Your task to perform on an android device: change keyboard looks Image 0: 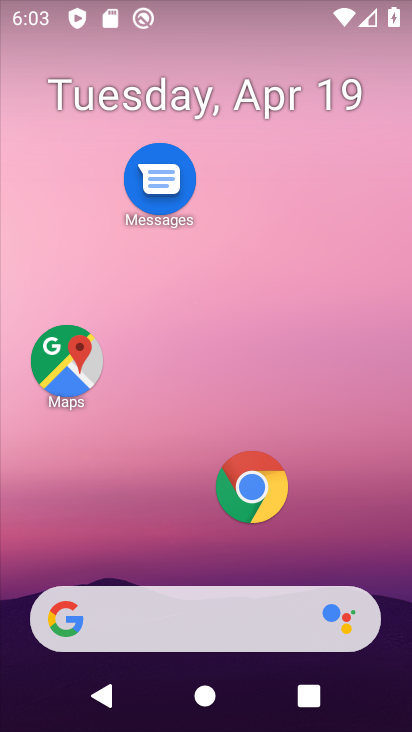
Step 0: drag from (201, 538) to (226, 28)
Your task to perform on an android device: change keyboard looks Image 1: 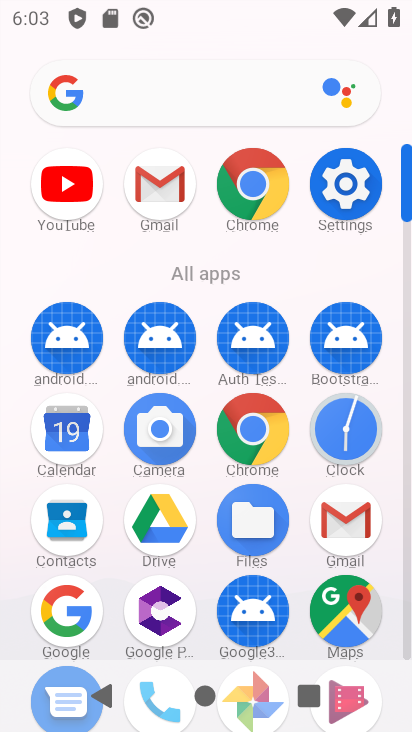
Step 1: click (341, 178)
Your task to perform on an android device: change keyboard looks Image 2: 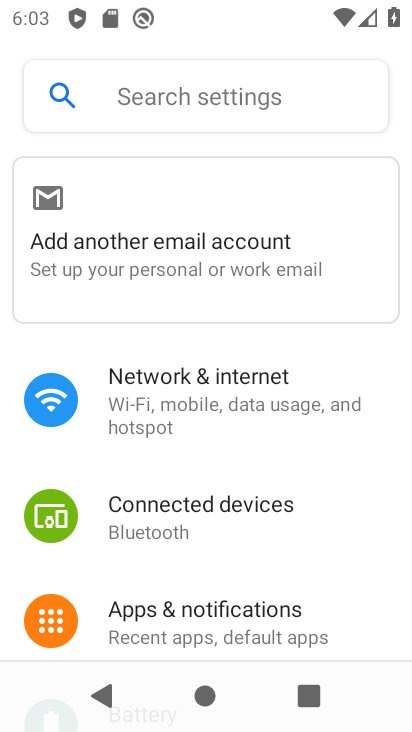
Step 2: drag from (216, 609) to (241, 86)
Your task to perform on an android device: change keyboard looks Image 3: 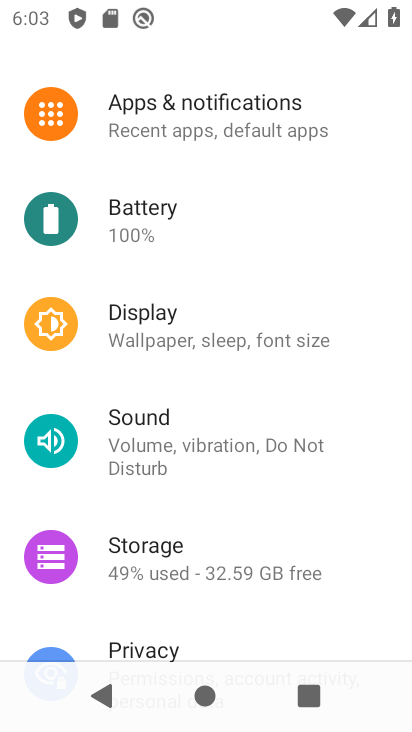
Step 3: drag from (211, 608) to (242, 70)
Your task to perform on an android device: change keyboard looks Image 4: 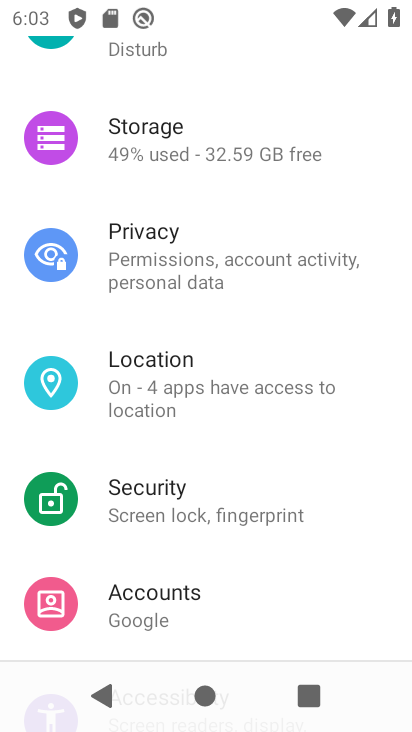
Step 4: drag from (209, 624) to (240, 70)
Your task to perform on an android device: change keyboard looks Image 5: 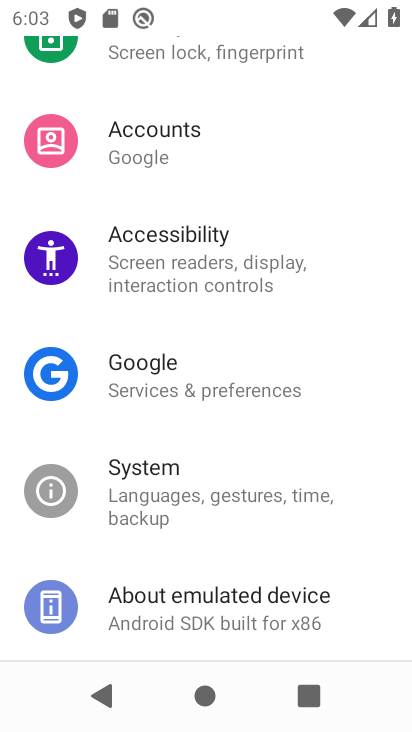
Step 5: click (189, 463)
Your task to perform on an android device: change keyboard looks Image 6: 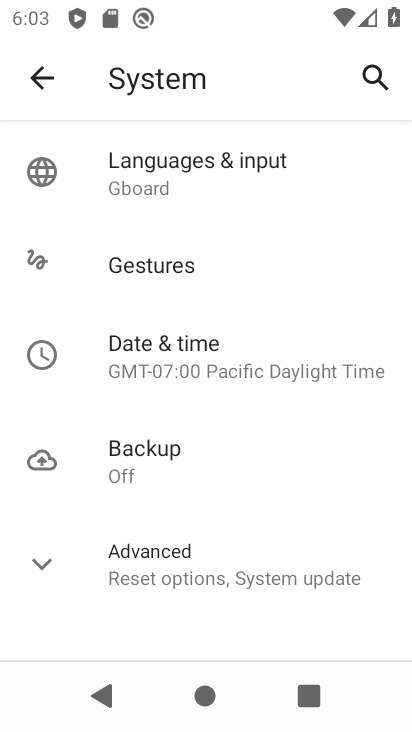
Step 6: click (202, 179)
Your task to perform on an android device: change keyboard looks Image 7: 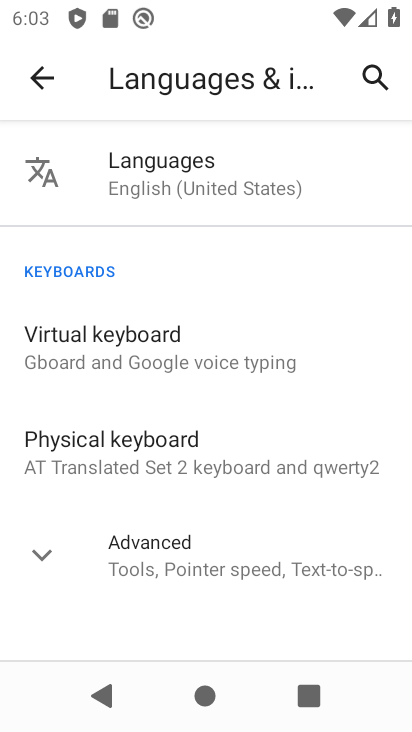
Step 7: click (190, 332)
Your task to perform on an android device: change keyboard looks Image 8: 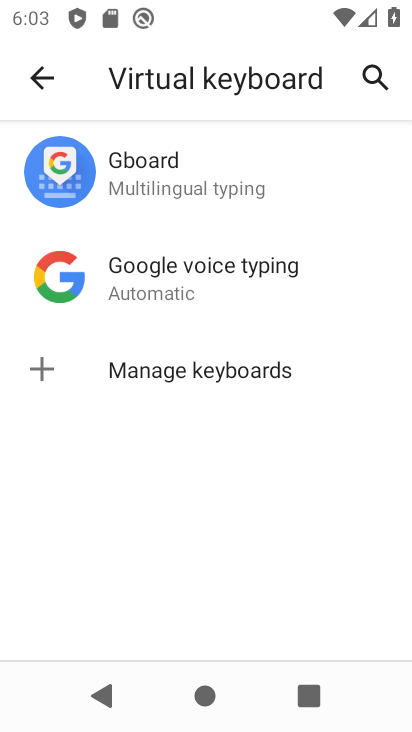
Step 8: click (186, 158)
Your task to perform on an android device: change keyboard looks Image 9: 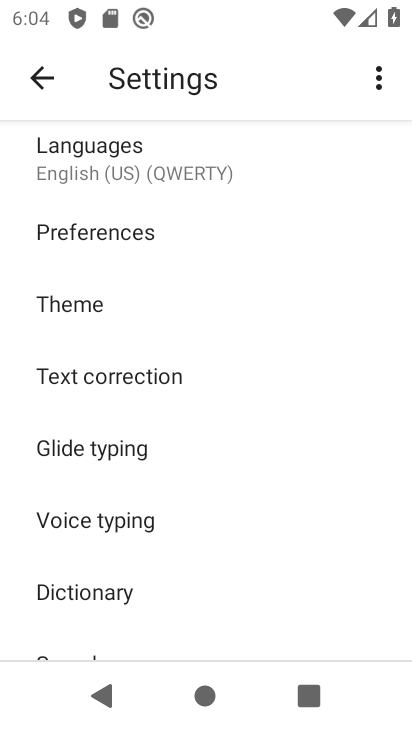
Step 9: click (124, 297)
Your task to perform on an android device: change keyboard looks Image 10: 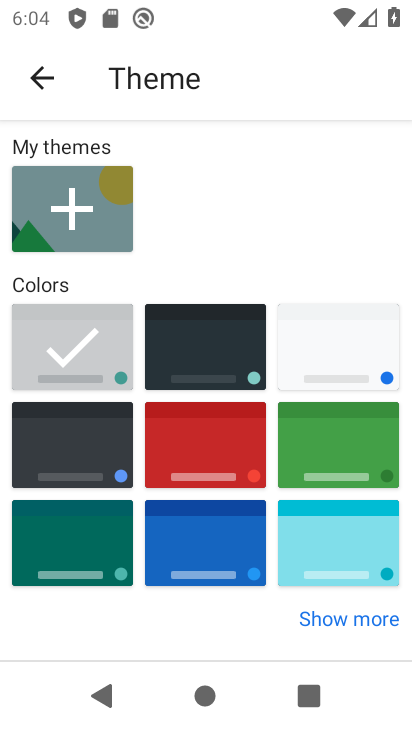
Step 10: click (327, 547)
Your task to perform on an android device: change keyboard looks Image 11: 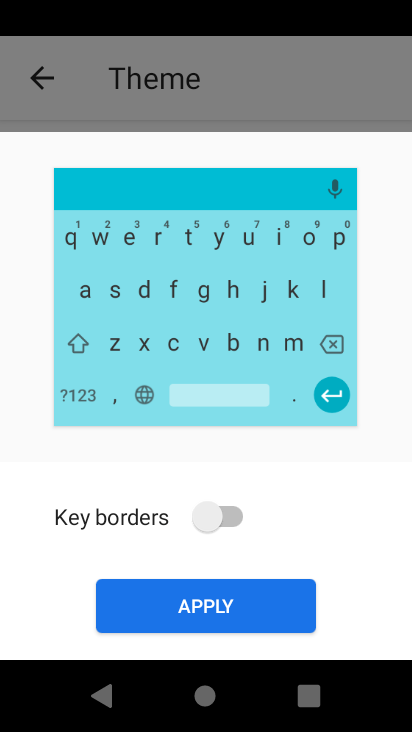
Step 11: click (207, 607)
Your task to perform on an android device: change keyboard looks Image 12: 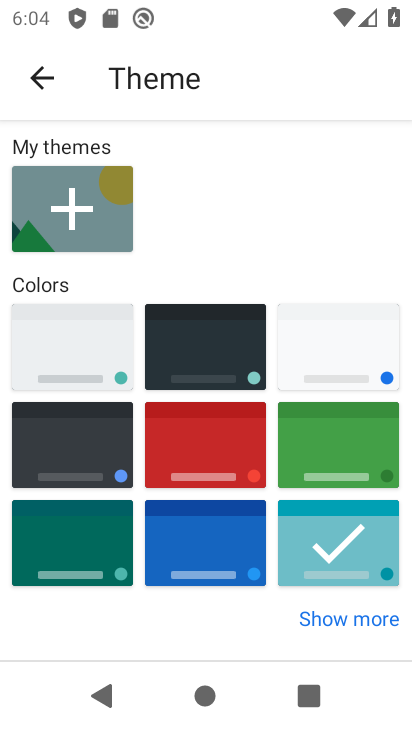
Step 12: task complete